Your task to perform on an android device: check out phone information Image 0: 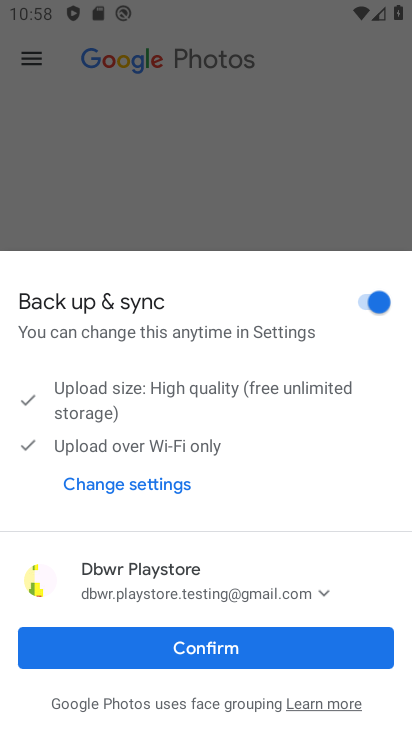
Step 0: click (197, 642)
Your task to perform on an android device: check out phone information Image 1: 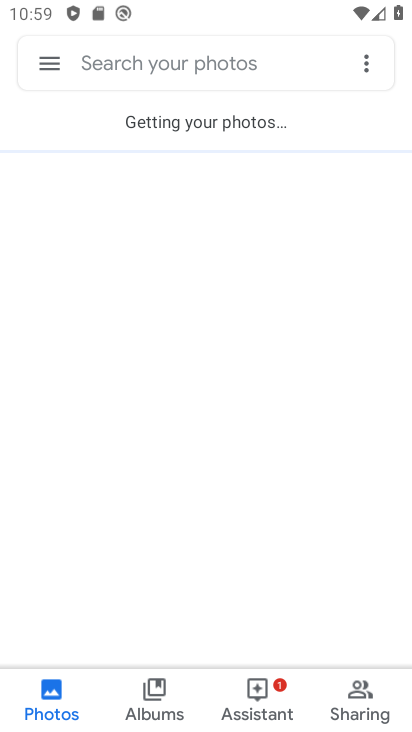
Step 1: press home button
Your task to perform on an android device: check out phone information Image 2: 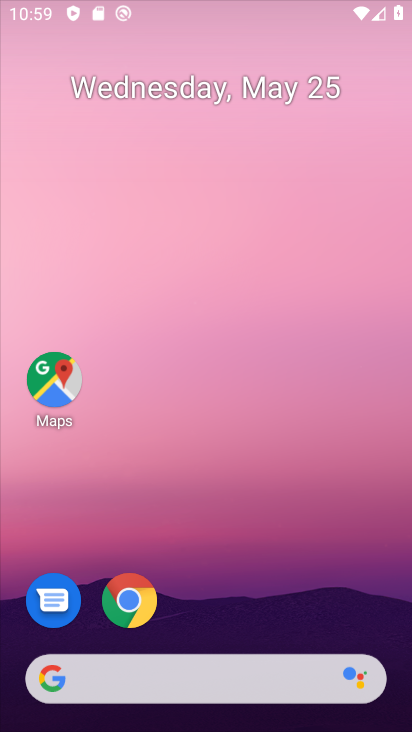
Step 2: drag from (224, 662) to (226, 127)
Your task to perform on an android device: check out phone information Image 3: 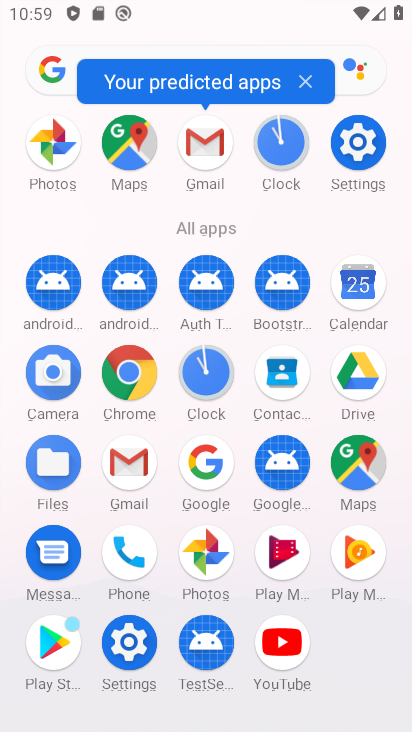
Step 3: click (350, 158)
Your task to perform on an android device: check out phone information Image 4: 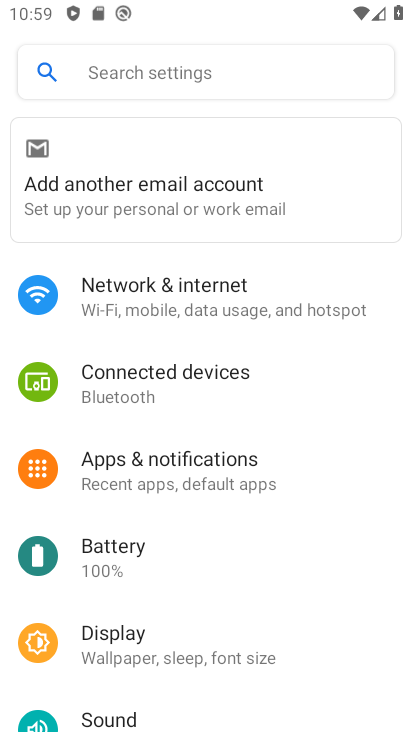
Step 4: drag from (204, 616) to (10, 544)
Your task to perform on an android device: check out phone information Image 5: 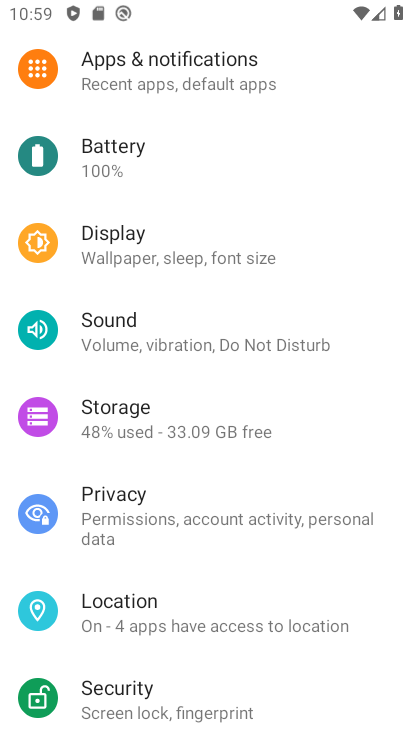
Step 5: drag from (217, 667) to (200, 59)
Your task to perform on an android device: check out phone information Image 6: 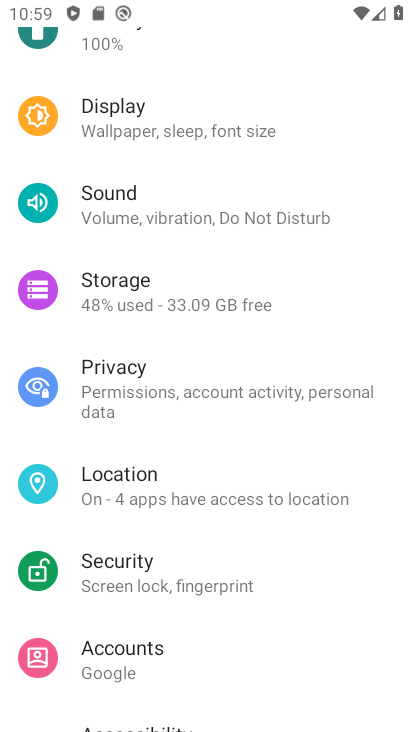
Step 6: drag from (151, 678) to (166, 16)
Your task to perform on an android device: check out phone information Image 7: 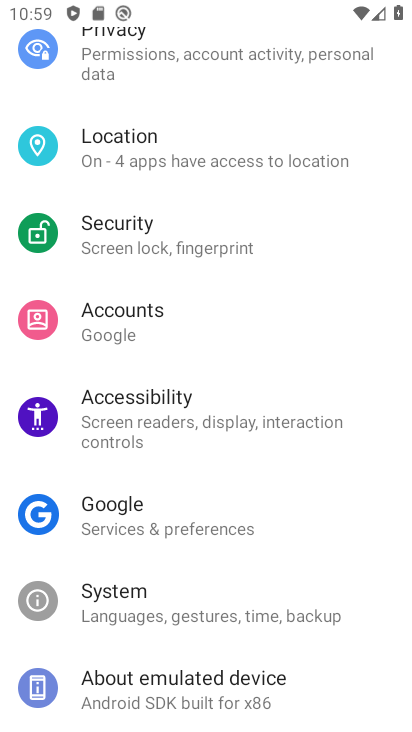
Step 7: click (197, 695)
Your task to perform on an android device: check out phone information Image 8: 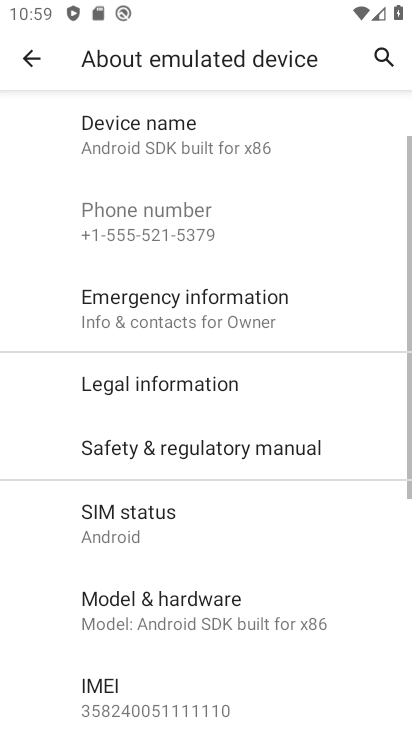
Step 8: task complete